Your task to perform on an android device: Turn on the flashlight Image 0: 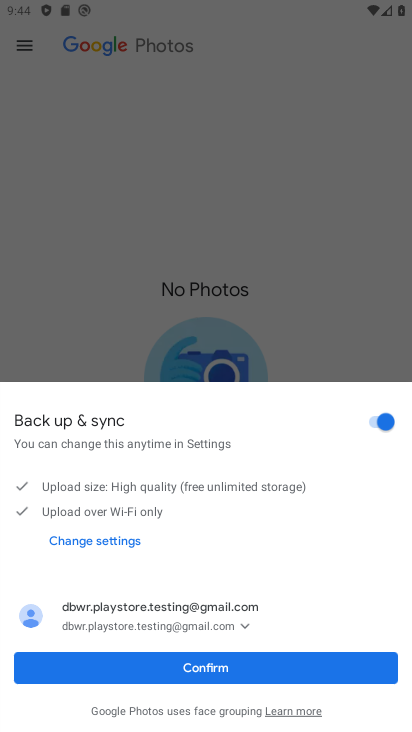
Step 0: press home button
Your task to perform on an android device: Turn on the flashlight Image 1: 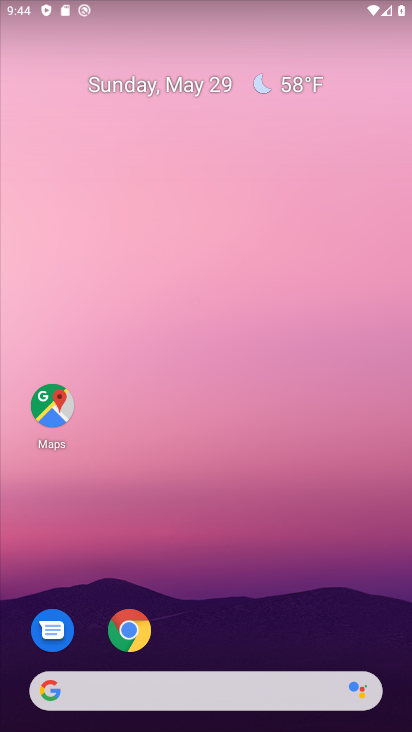
Step 1: task complete